Your task to perform on an android device: Search for flights from San Diego to Seattle Image 0: 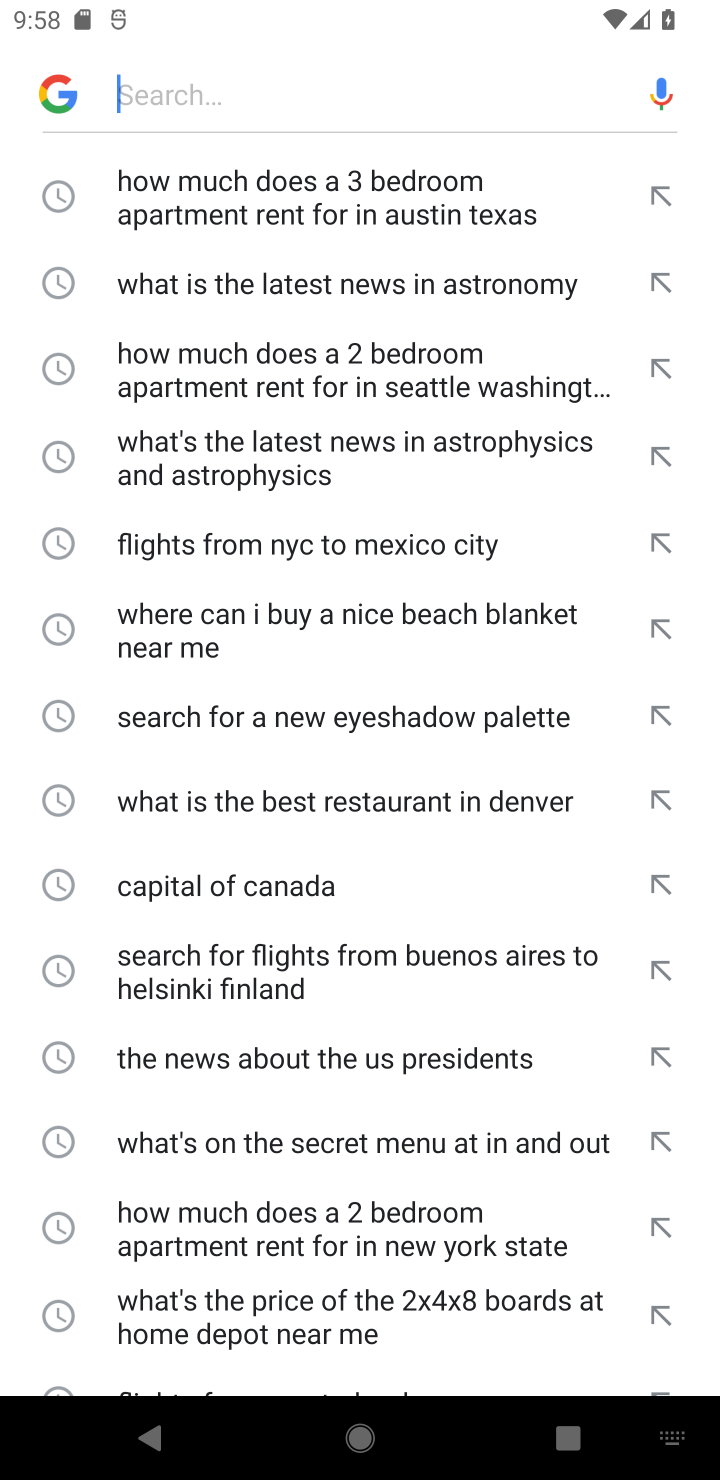
Step 0: type "flights from San Diego to Seattle"
Your task to perform on an android device: Search for flights from San Diego to Seattle Image 1: 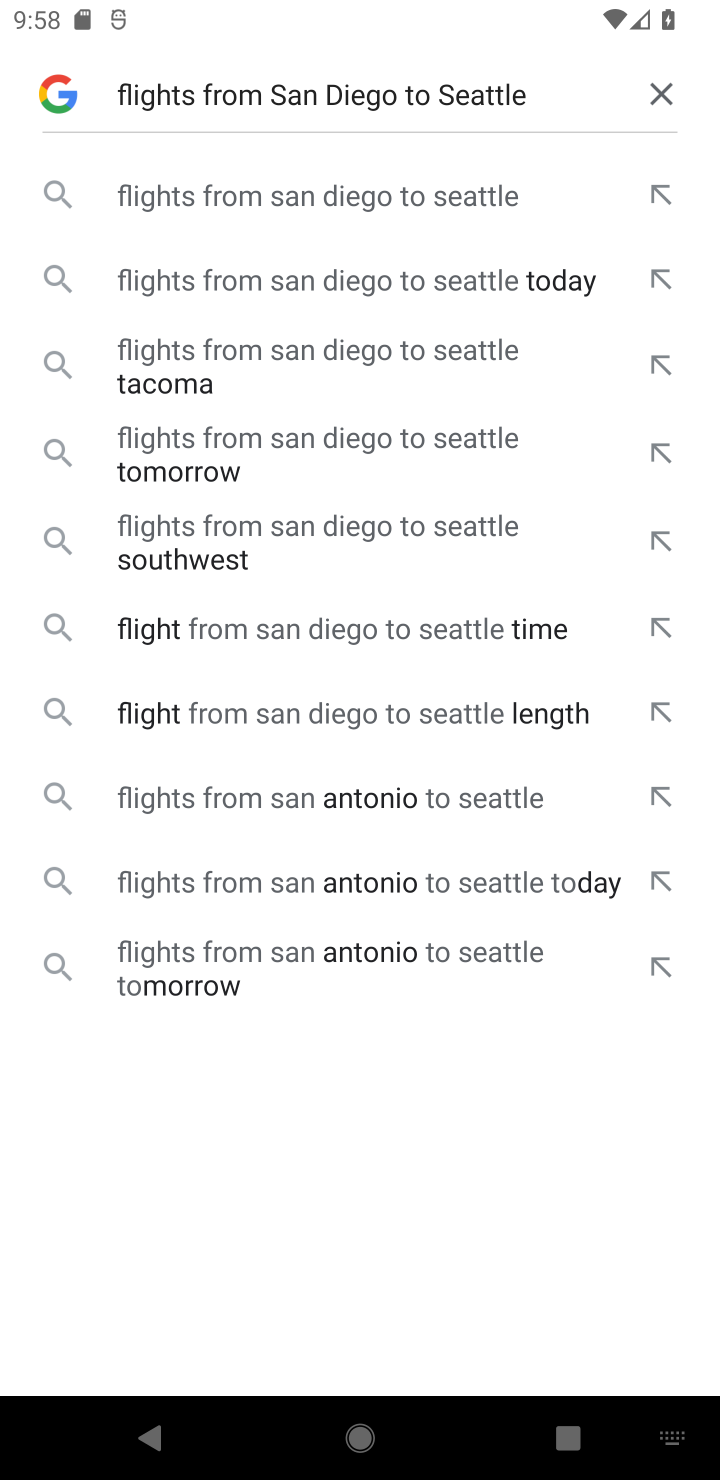
Step 1: click (285, 182)
Your task to perform on an android device: Search for flights from San Diego to Seattle Image 2: 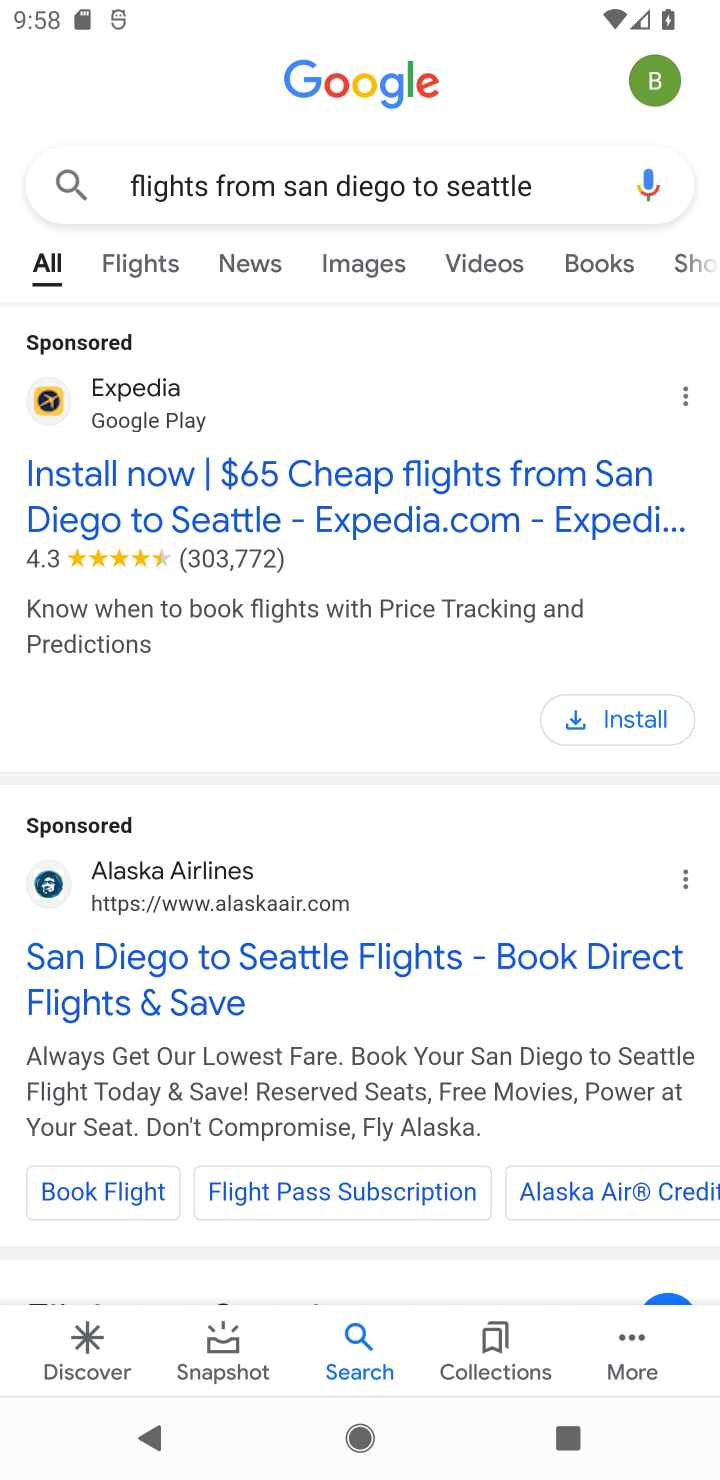
Step 2: task complete